Your task to perform on an android device: Go to wifi settings Image 0: 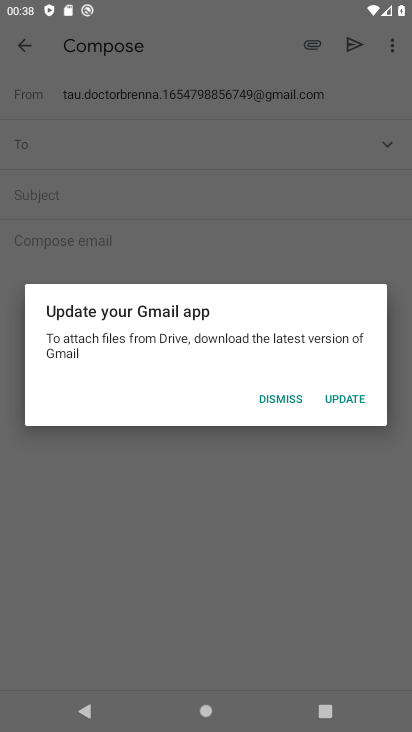
Step 0: press back button
Your task to perform on an android device: Go to wifi settings Image 1: 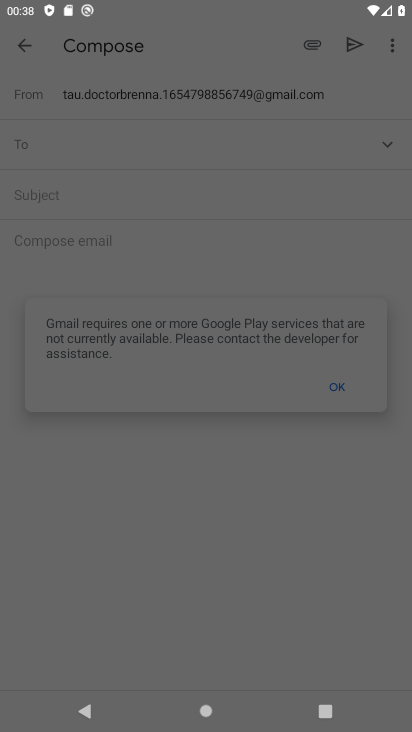
Step 1: press back button
Your task to perform on an android device: Go to wifi settings Image 2: 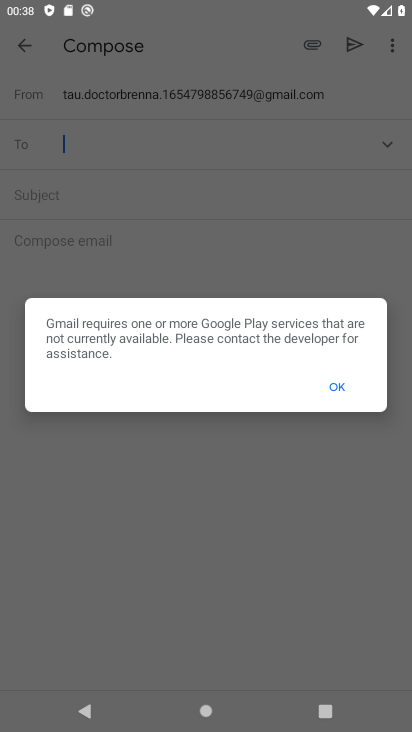
Step 2: press home button
Your task to perform on an android device: Go to wifi settings Image 3: 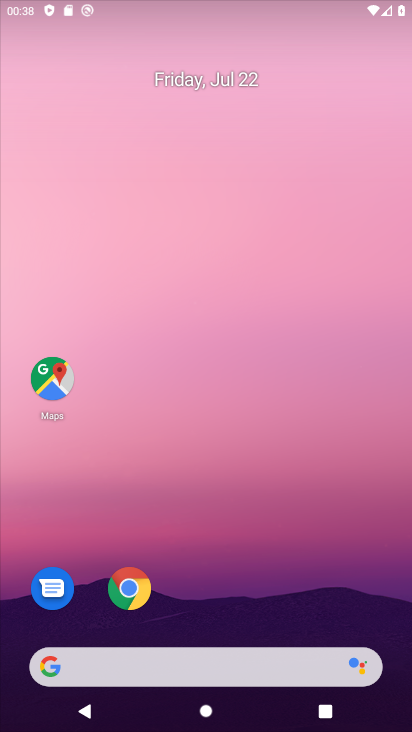
Step 3: drag from (86, 8) to (147, 566)
Your task to perform on an android device: Go to wifi settings Image 4: 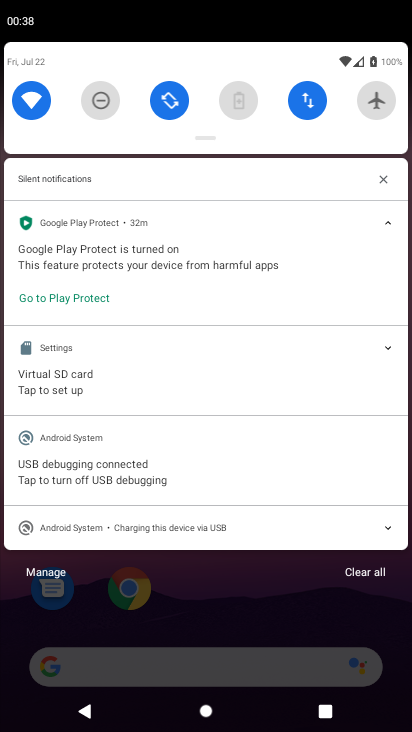
Step 4: click (35, 95)
Your task to perform on an android device: Go to wifi settings Image 5: 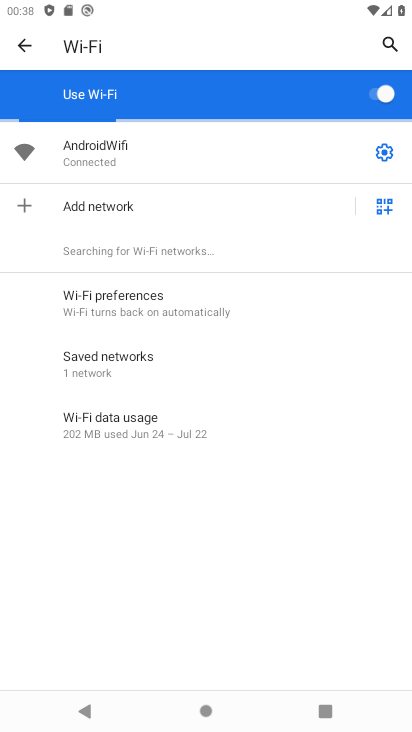
Step 5: task complete